Your task to perform on an android device: What's on my calendar today? Image 0: 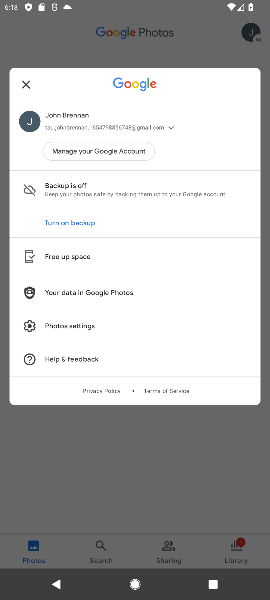
Step 0: press home button
Your task to perform on an android device: What's on my calendar today? Image 1: 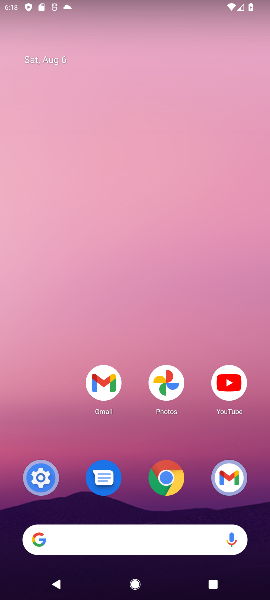
Step 1: drag from (148, 508) to (200, 10)
Your task to perform on an android device: What's on my calendar today? Image 2: 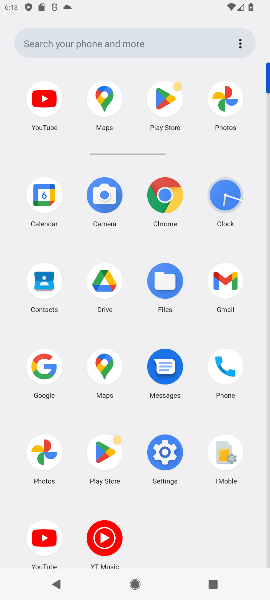
Step 2: click (46, 193)
Your task to perform on an android device: What's on my calendar today? Image 3: 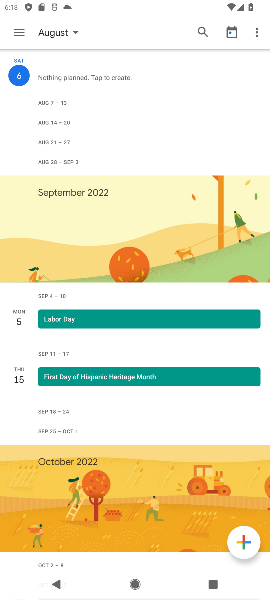
Step 3: click (76, 31)
Your task to perform on an android device: What's on my calendar today? Image 4: 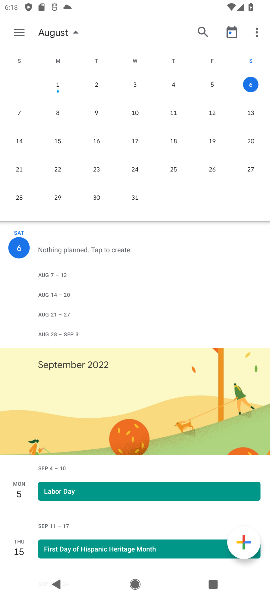
Step 4: click (248, 86)
Your task to perform on an android device: What's on my calendar today? Image 5: 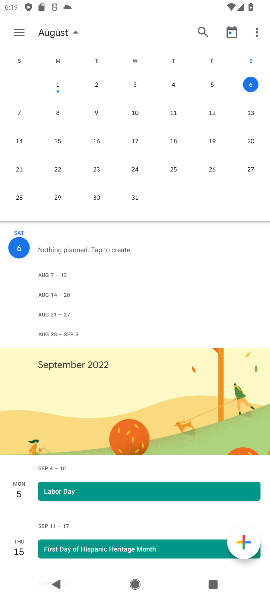
Step 5: task complete